Your task to perform on an android device: open device folders in google photos Image 0: 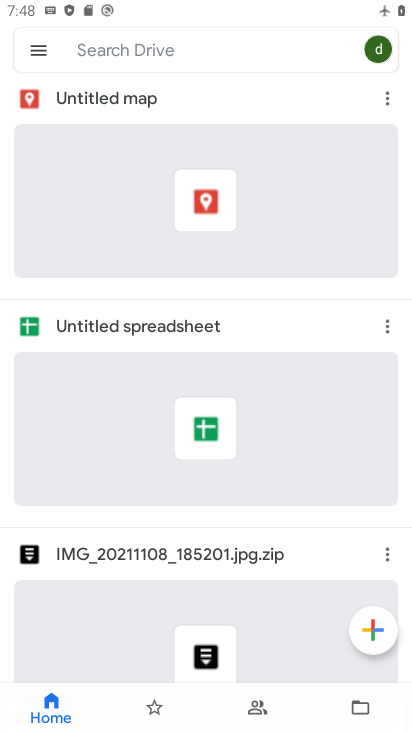
Step 0: press home button
Your task to perform on an android device: open device folders in google photos Image 1: 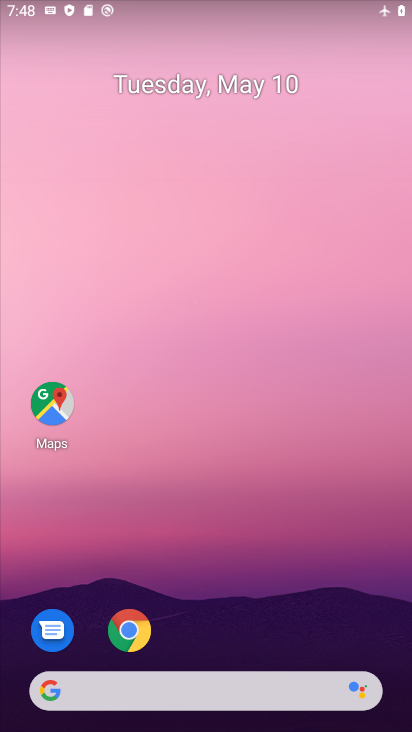
Step 1: drag from (276, 666) to (201, 29)
Your task to perform on an android device: open device folders in google photos Image 2: 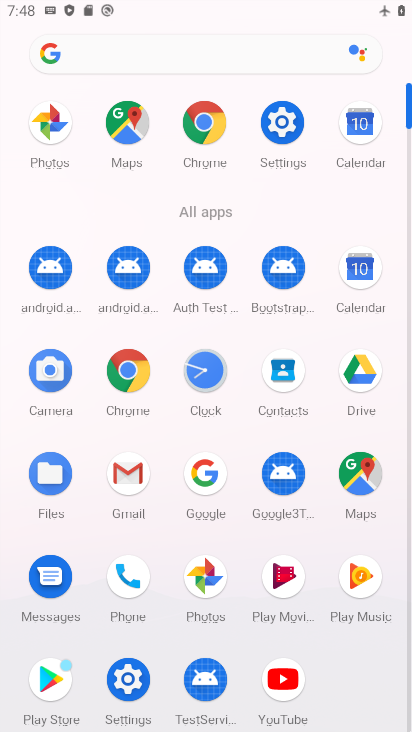
Step 2: click (56, 138)
Your task to perform on an android device: open device folders in google photos Image 3: 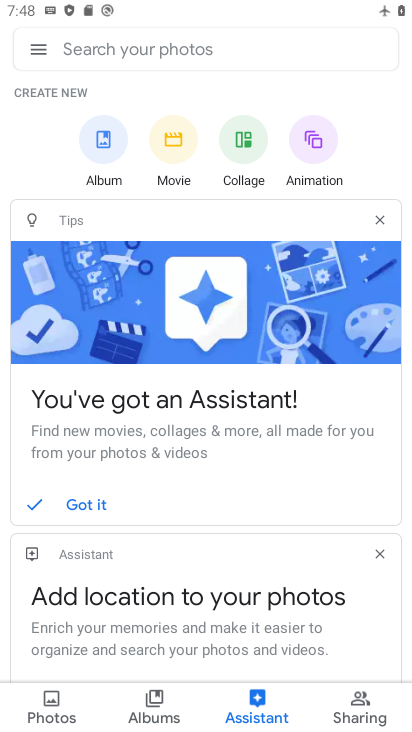
Step 3: click (34, 58)
Your task to perform on an android device: open device folders in google photos Image 4: 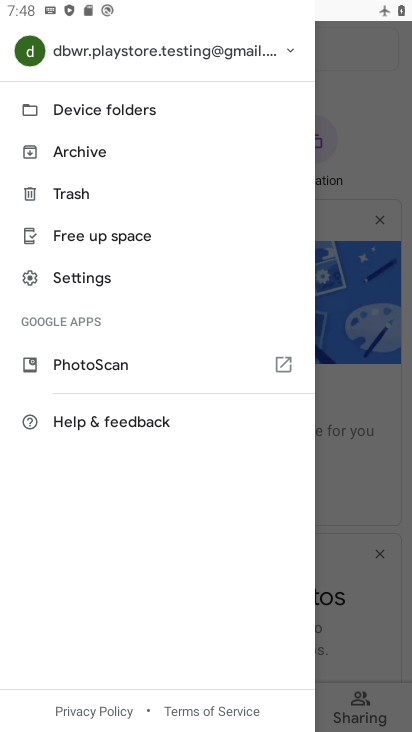
Step 4: click (89, 105)
Your task to perform on an android device: open device folders in google photos Image 5: 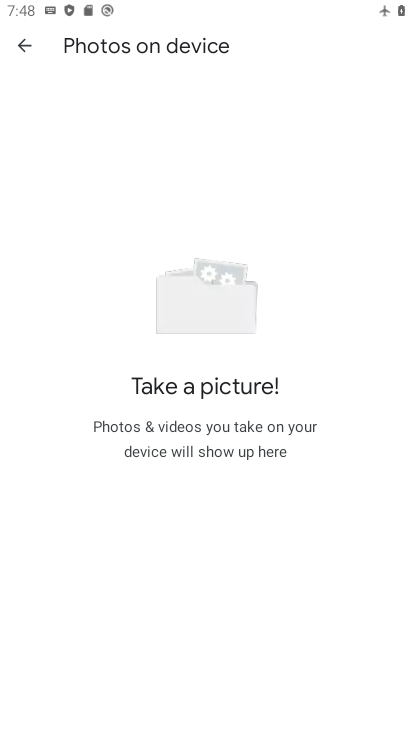
Step 5: task complete